Your task to perform on an android device: empty trash in google photos Image 0: 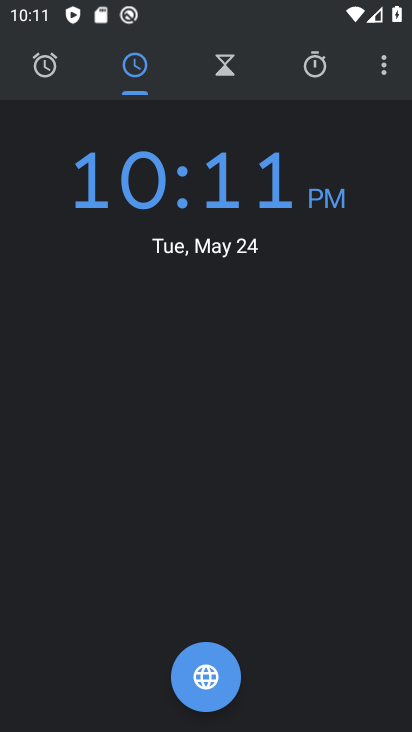
Step 0: press home button
Your task to perform on an android device: empty trash in google photos Image 1: 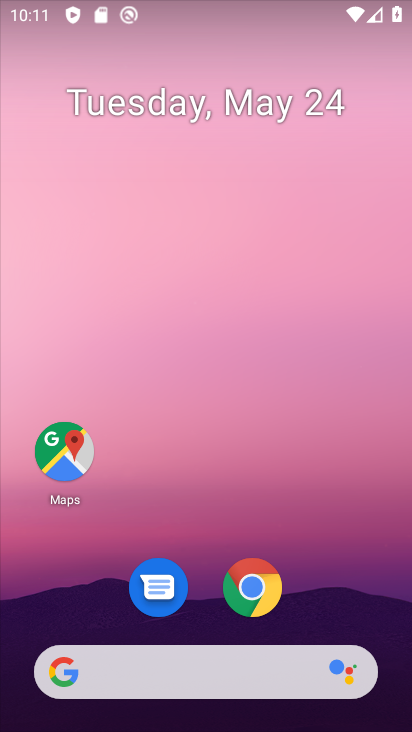
Step 1: drag from (205, 630) to (94, 40)
Your task to perform on an android device: empty trash in google photos Image 2: 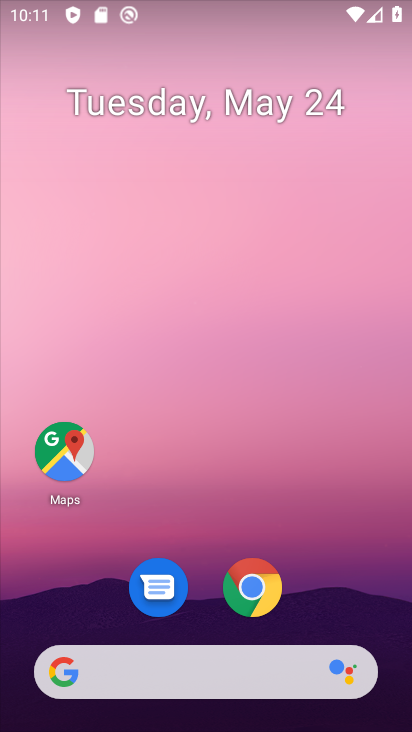
Step 2: drag from (327, 631) to (251, 31)
Your task to perform on an android device: empty trash in google photos Image 3: 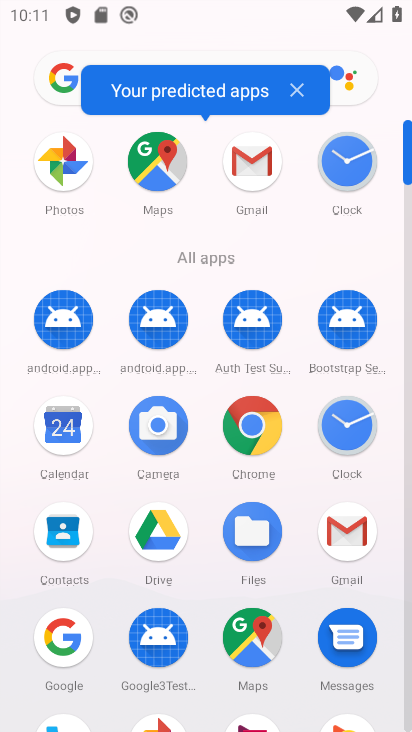
Step 3: click (155, 714)
Your task to perform on an android device: empty trash in google photos Image 4: 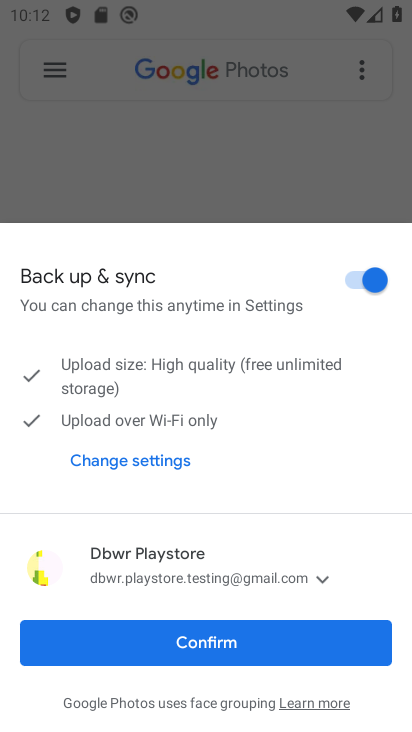
Step 4: click (246, 640)
Your task to perform on an android device: empty trash in google photos Image 5: 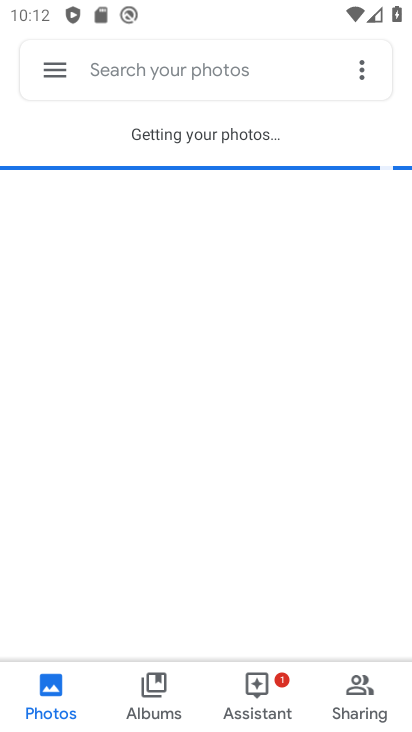
Step 5: click (55, 60)
Your task to perform on an android device: empty trash in google photos Image 6: 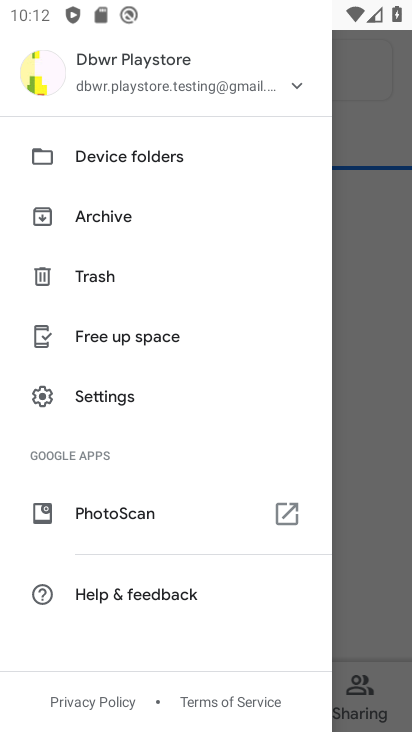
Step 6: click (92, 286)
Your task to perform on an android device: empty trash in google photos Image 7: 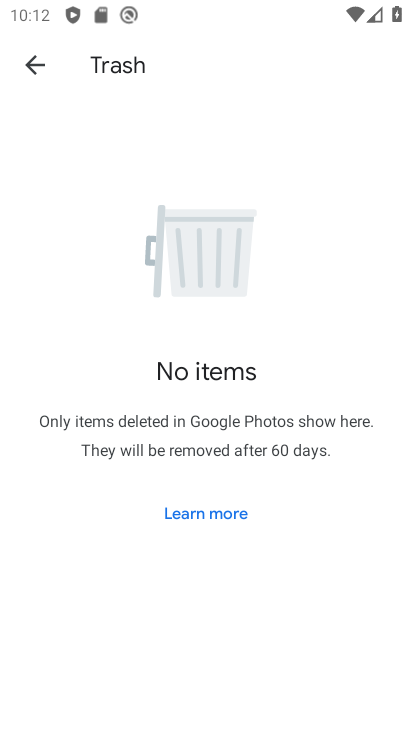
Step 7: task complete